Your task to perform on an android device: Open settings on Google Maps Image 0: 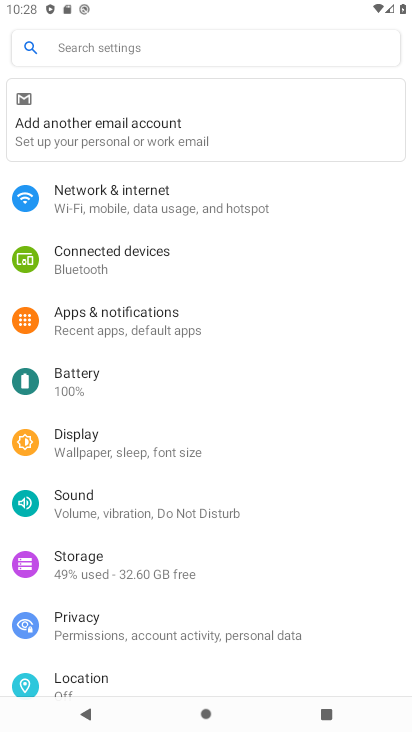
Step 0: press home button
Your task to perform on an android device: Open settings on Google Maps Image 1: 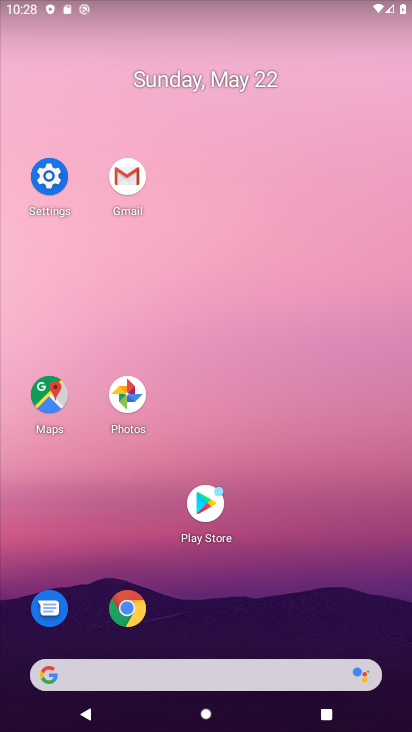
Step 1: click (42, 401)
Your task to perform on an android device: Open settings on Google Maps Image 2: 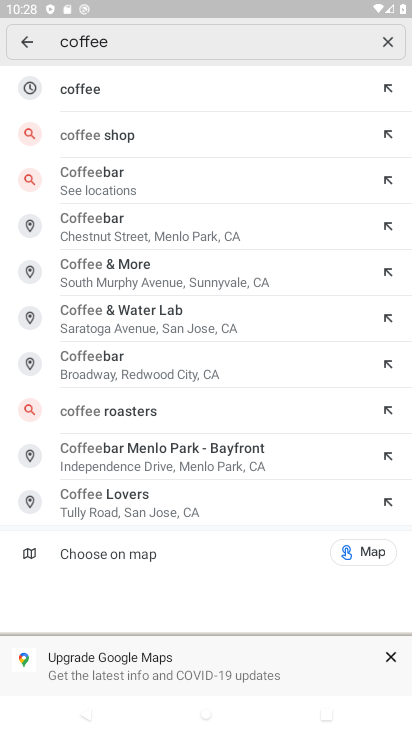
Step 2: click (30, 37)
Your task to perform on an android device: Open settings on Google Maps Image 3: 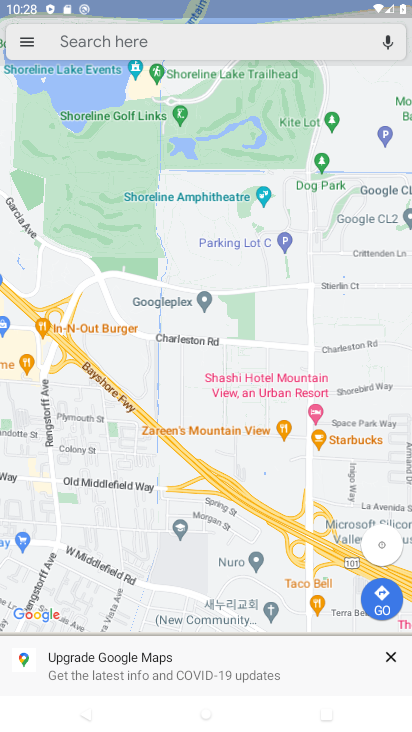
Step 3: click (35, 42)
Your task to perform on an android device: Open settings on Google Maps Image 4: 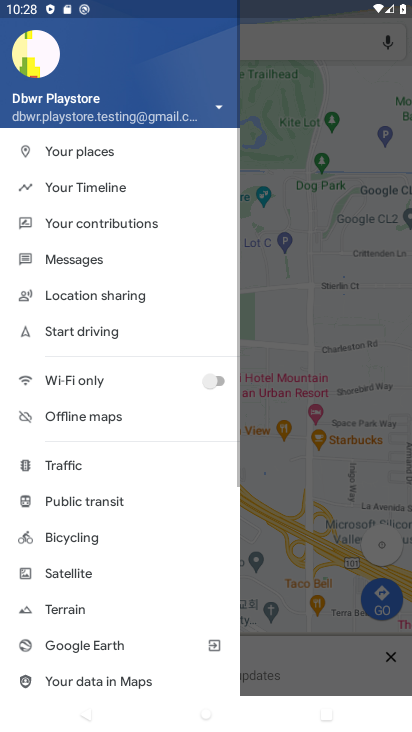
Step 4: drag from (145, 604) to (130, 195)
Your task to perform on an android device: Open settings on Google Maps Image 5: 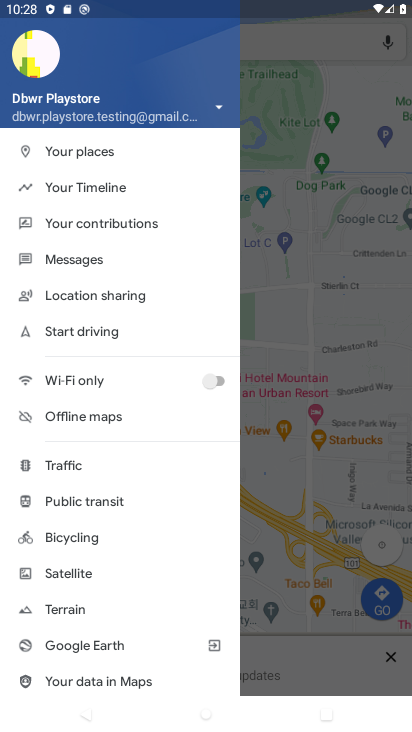
Step 5: drag from (96, 662) to (130, 273)
Your task to perform on an android device: Open settings on Google Maps Image 6: 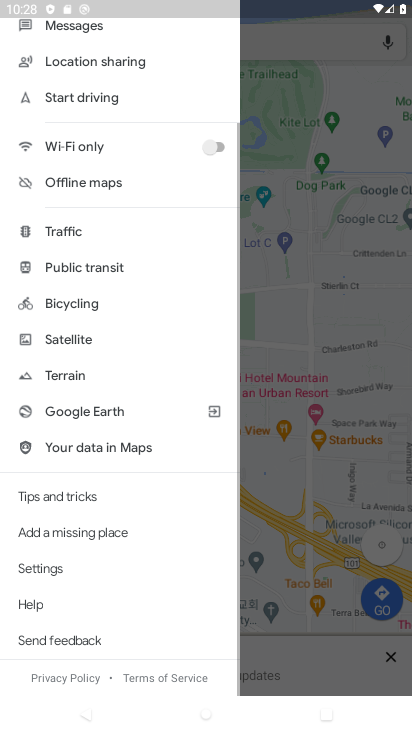
Step 6: click (76, 585)
Your task to perform on an android device: Open settings on Google Maps Image 7: 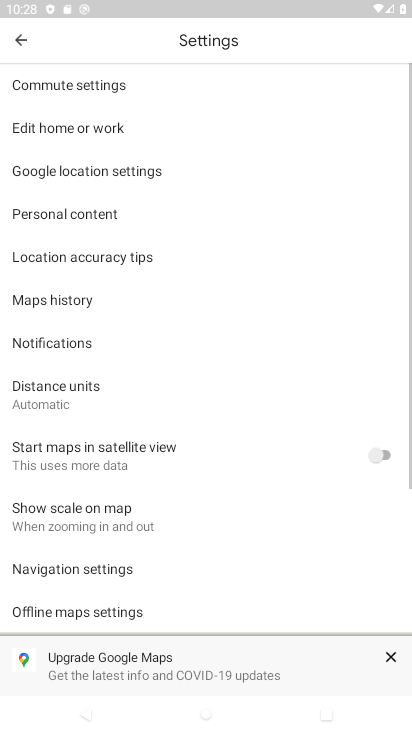
Step 7: task complete